Your task to perform on an android device: Open privacy settings Image 0: 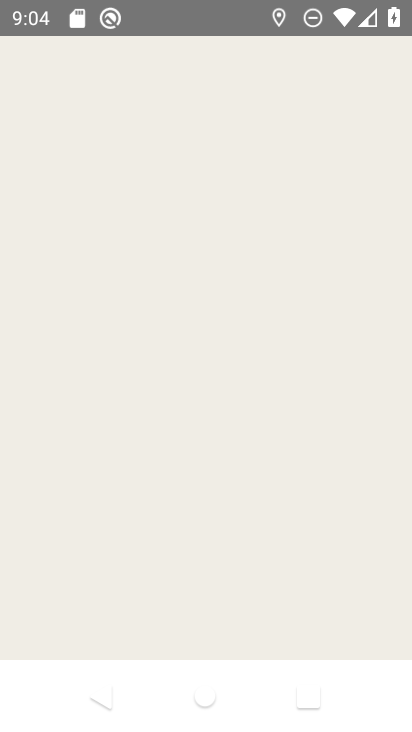
Step 0: press home button
Your task to perform on an android device: Open privacy settings Image 1: 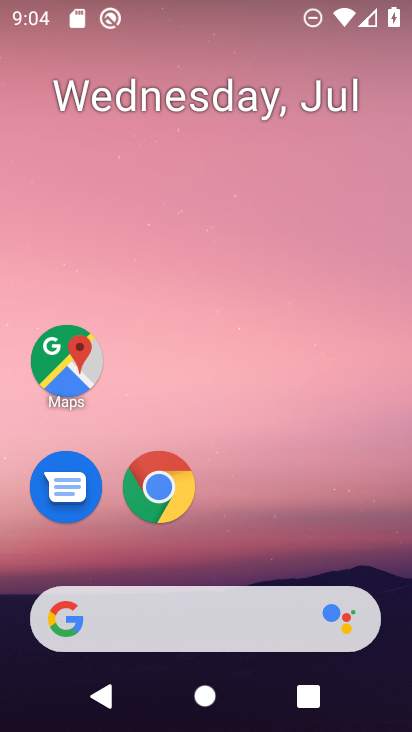
Step 1: drag from (337, 552) to (338, 86)
Your task to perform on an android device: Open privacy settings Image 2: 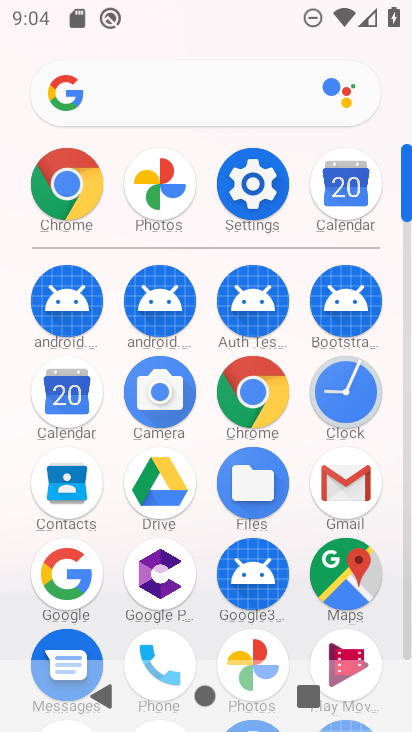
Step 2: click (263, 184)
Your task to perform on an android device: Open privacy settings Image 3: 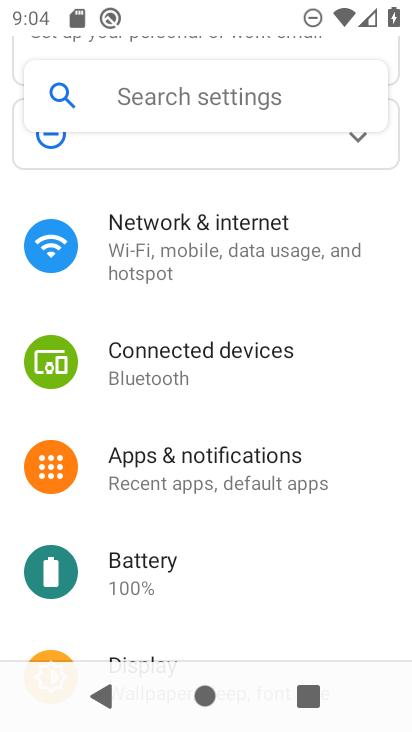
Step 3: drag from (378, 429) to (380, 357)
Your task to perform on an android device: Open privacy settings Image 4: 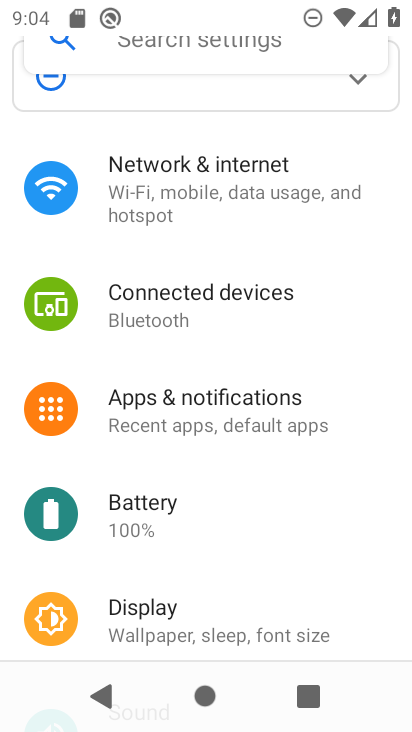
Step 4: drag from (361, 506) to (360, 418)
Your task to perform on an android device: Open privacy settings Image 5: 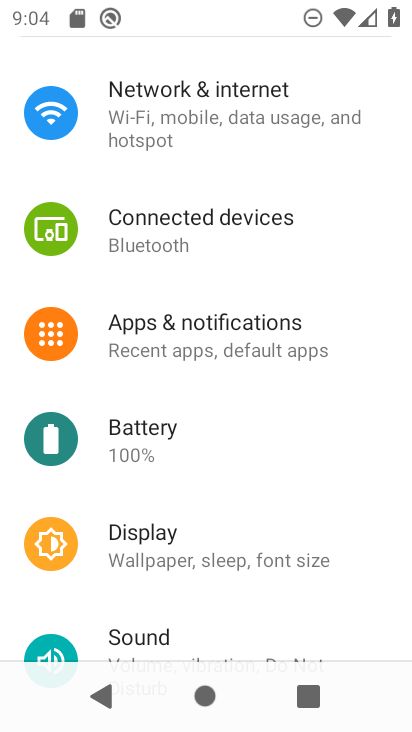
Step 5: drag from (362, 505) to (361, 425)
Your task to perform on an android device: Open privacy settings Image 6: 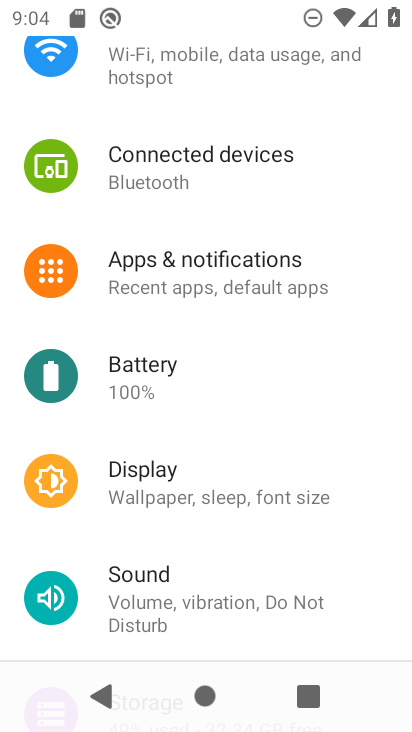
Step 6: drag from (368, 529) to (371, 421)
Your task to perform on an android device: Open privacy settings Image 7: 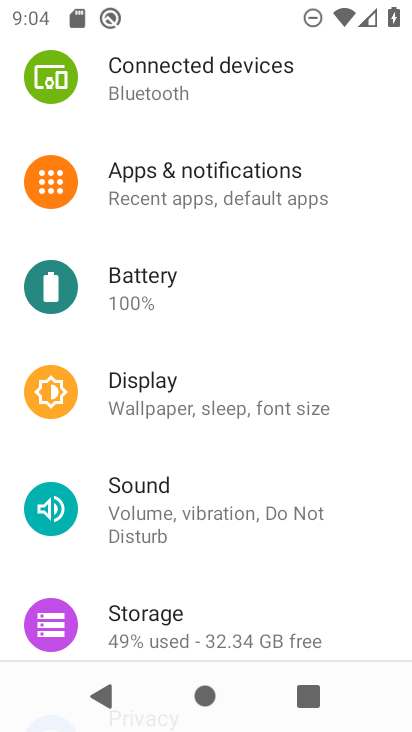
Step 7: drag from (368, 523) to (362, 416)
Your task to perform on an android device: Open privacy settings Image 8: 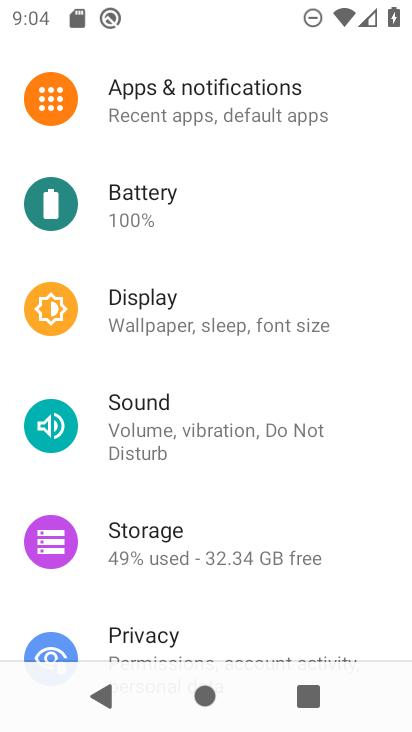
Step 8: drag from (346, 523) to (355, 405)
Your task to perform on an android device: Open privacy settings Image 9: 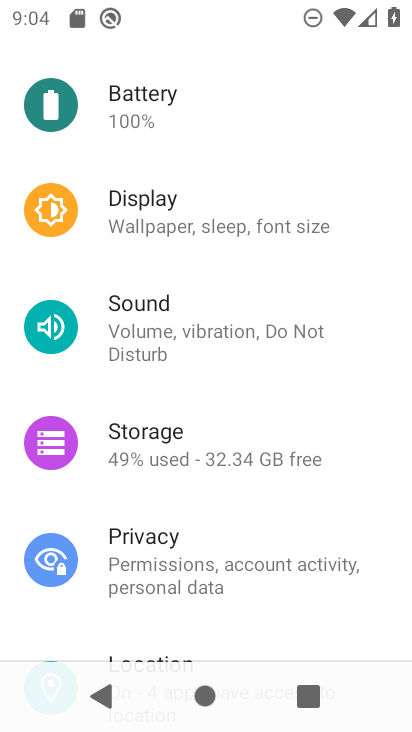
Step 9: drag from (388, 582) to (383, 470)
Your task to perform on an android device: Open privacy settings Image 10: 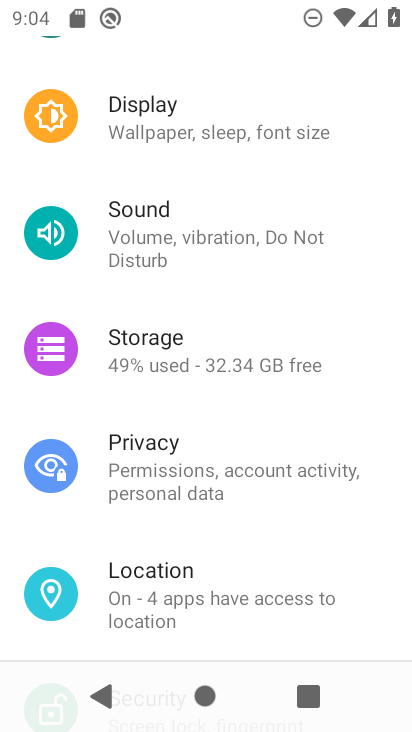
Step 10: click (378, 468)
Your task to perform on an android device: Open privacy settings Image 11: 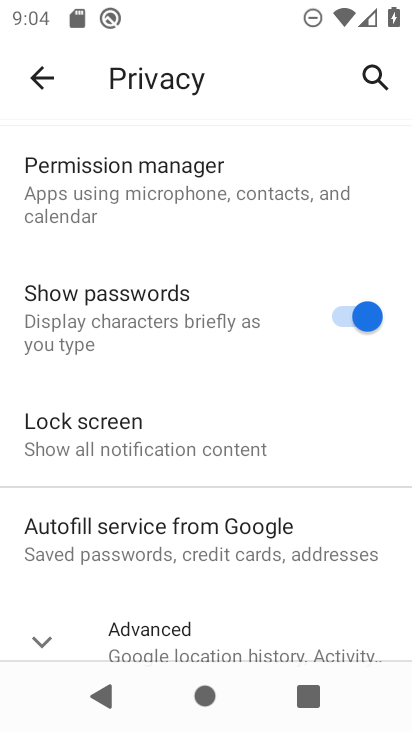
Step 11: task complete